Your task to perform on an android device: Open network settings Image 0: 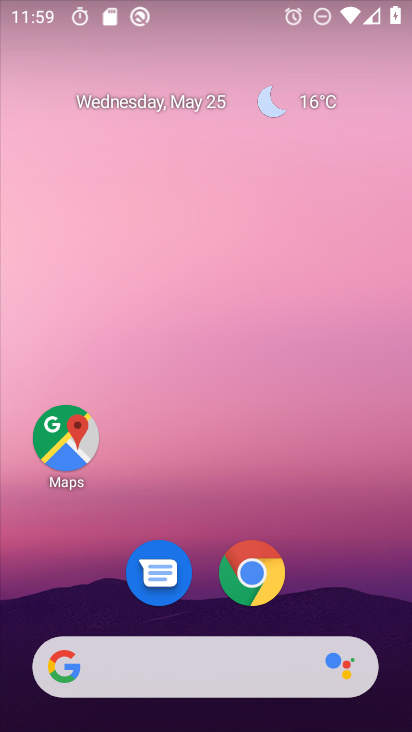
Step 0: drag from (362, 609) to (333, 11)
Your task to perform on an android device: Open network settings Image 1: 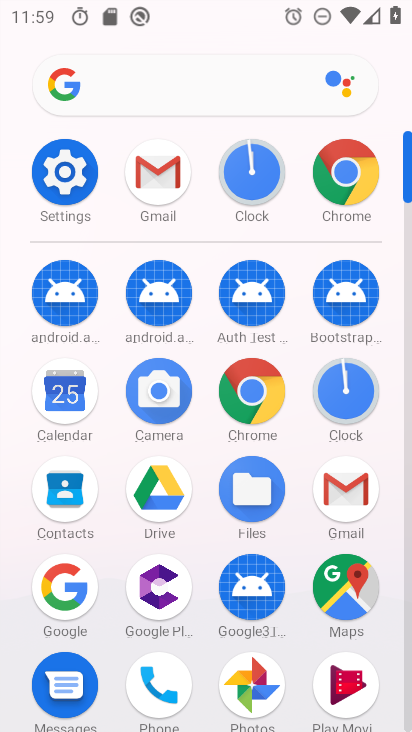
Step 1: click (75, 175)
Your task to perform on an android device: Open network settings Image 2: 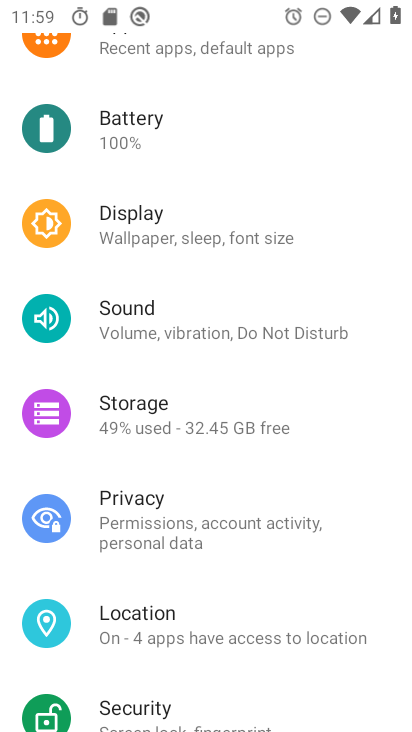
Step 2: drag from (236, 242) to (254, 487)
Your task to perform on an android device: Open network settings Image 3: 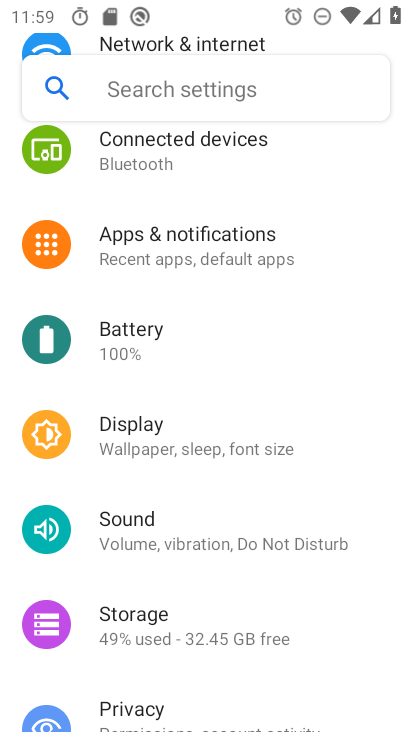
Step 3: drag from (236, 195) to (267, 448)
Your task to perform on an android device: Open network settings Image 4: 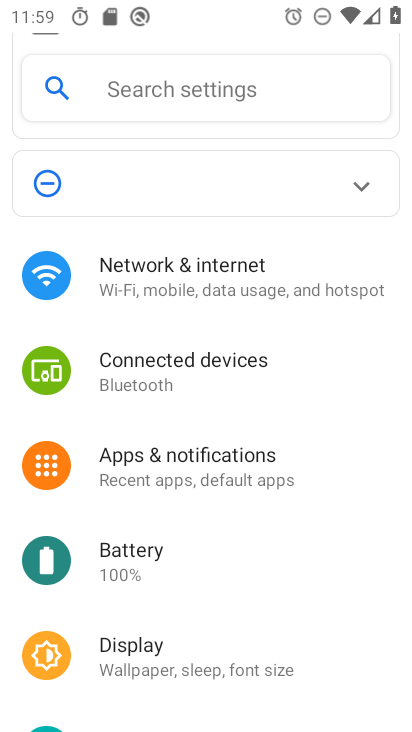
Step 4: click (151, 292)
Your task to perform on an android device: Open network settings Image 5: 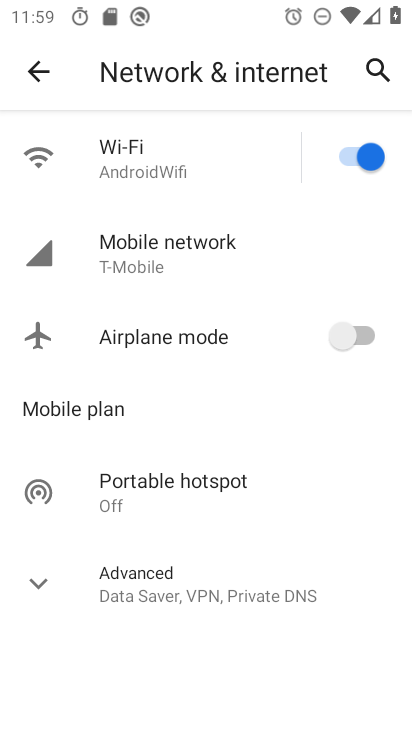
Step 5: click (117, 256)
Your task to perform on an android device: Open network settings Image 6: 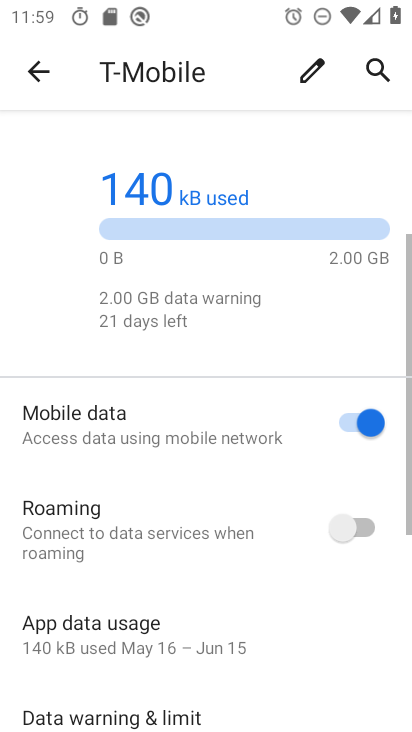
Step 6: drag from (157, 524) to (169, 36)
Your task to perform on an android device: Open network settings Image 7: 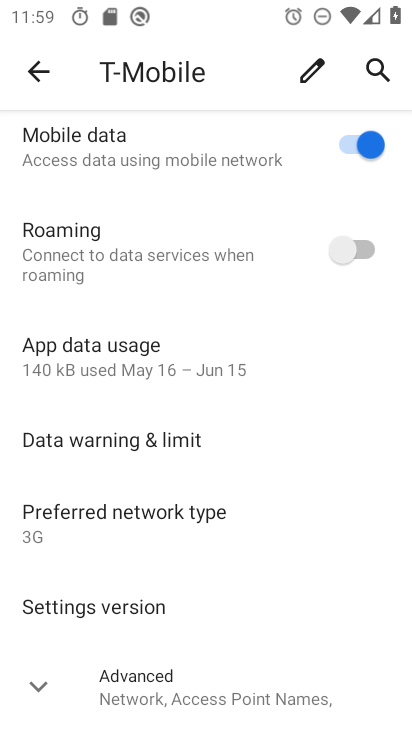
Step 7: click (38, 694)
Your task to perform on an android device: Open network settings Image 8: 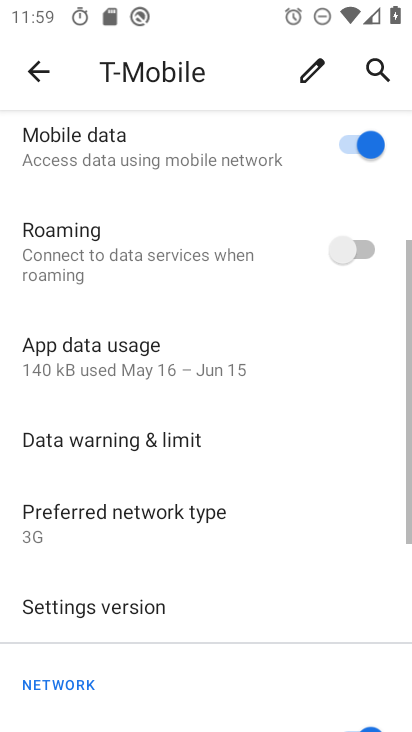
Step 8: task complete